Your task to perform on an android device: open device folders in google photos Image 0: 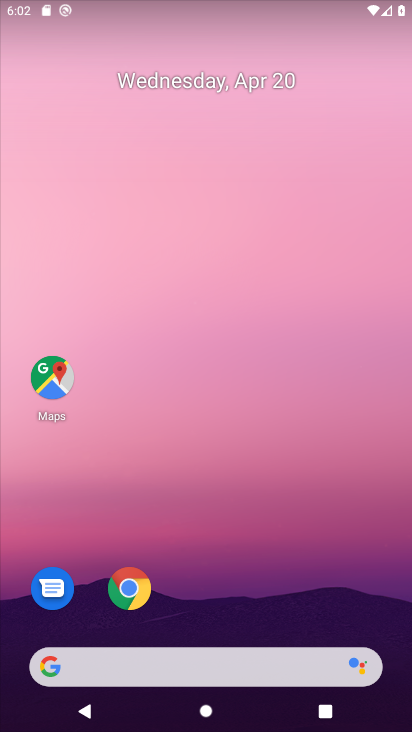
Step 0: drag from (285, 554) to (252, 50)
Your task to perform on an android device: open device folders in google photos Image 1: 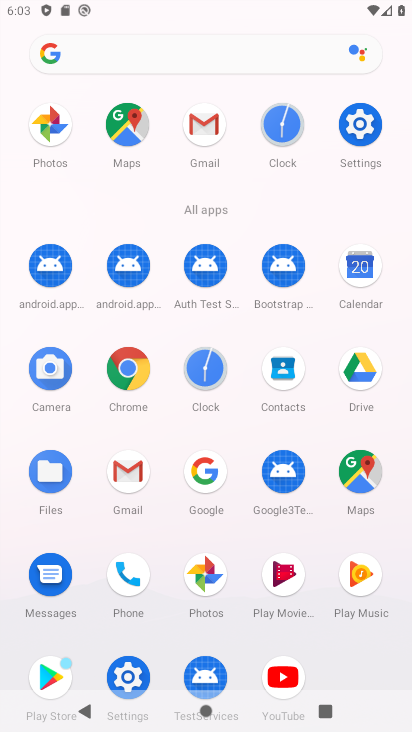
Step 1: click (54, 125)
Your task to perform on an android device: open device folders in google photos Image 2: 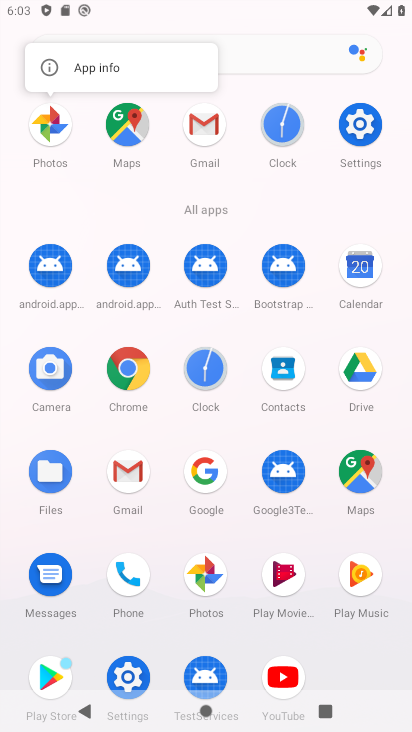
Step 2: click (214, 579)
Your task to perform on an android device: open device folders in google photos Image 3: 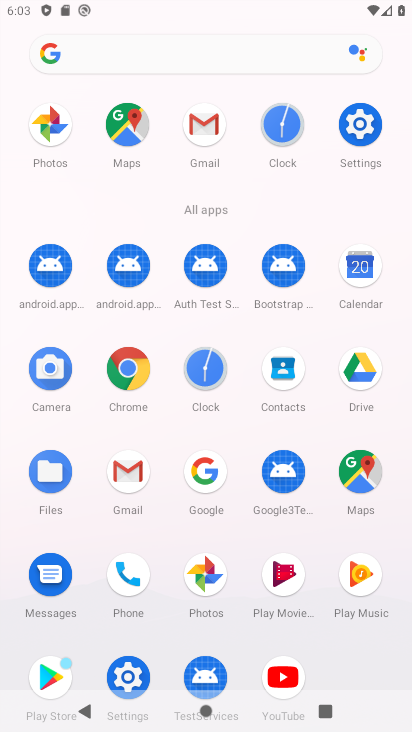
Step 3: click (201, 576)
Your task to perform on an android device: open device folders in google photos Image 4: 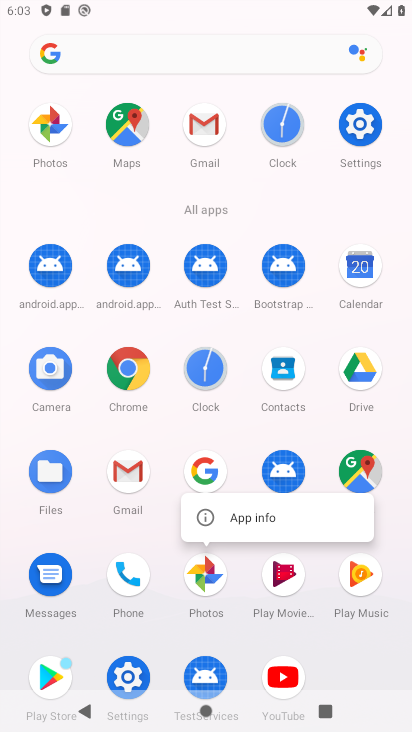
Step 4: click (214, 576)
Your task to perform on an android device: open device folders in google photos Image 5: 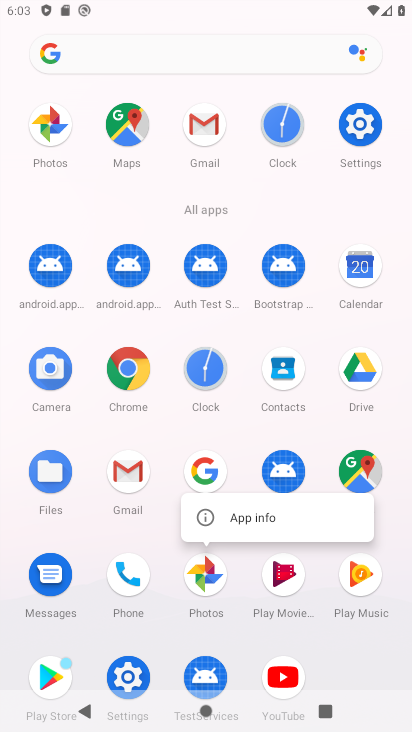
Step 5: click (203, 568)
Your task to perform on an android device: open device folders in google photos Image 6: 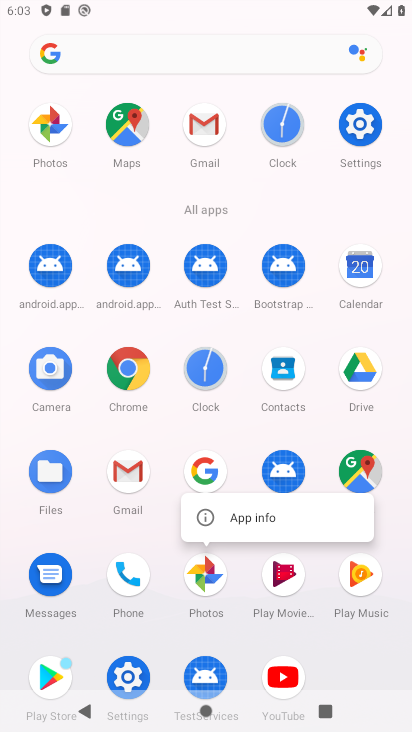
Step 6: click (203, 568)
Your task to perform on an android device: open device folders in google photos Image 7: 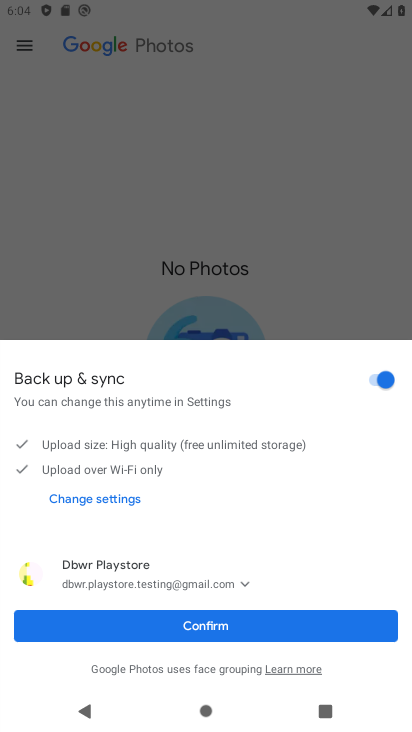
Step 7: press home button
Your task to perform on an android device: open device folders in google photos Image 8: 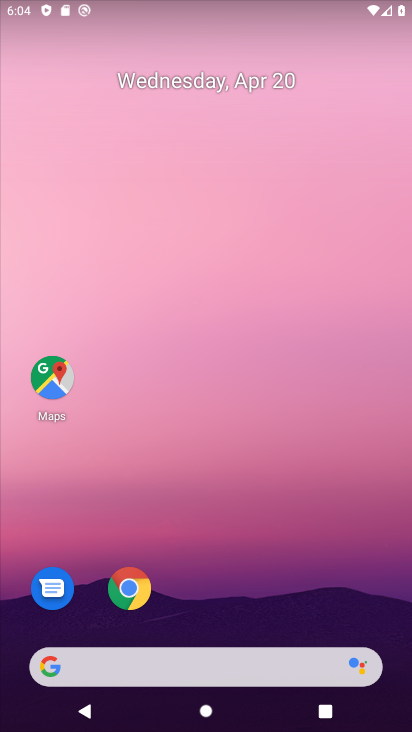
Step 8: drag from (251, 605) to (279, 128)
Your task to perform on an android device: open device folders in google photos Image 9: 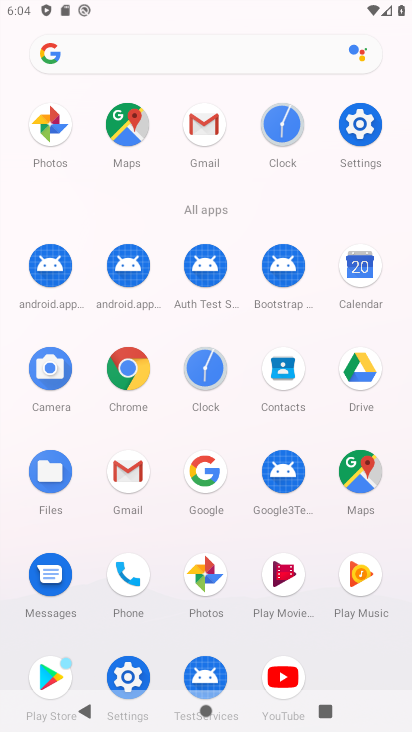
Step 9: click (200, 575)
Your task to perform on an android device: open device folders in google photos Image 10: 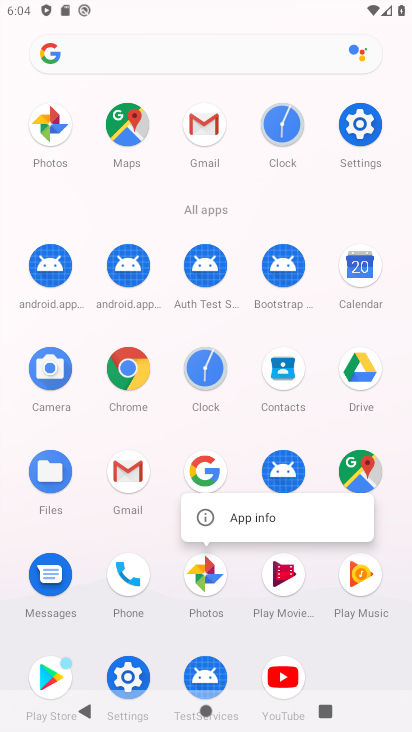
Step 10: click (217, 579)
Your task to perform on an android device: open device folders in google photos Image 11: 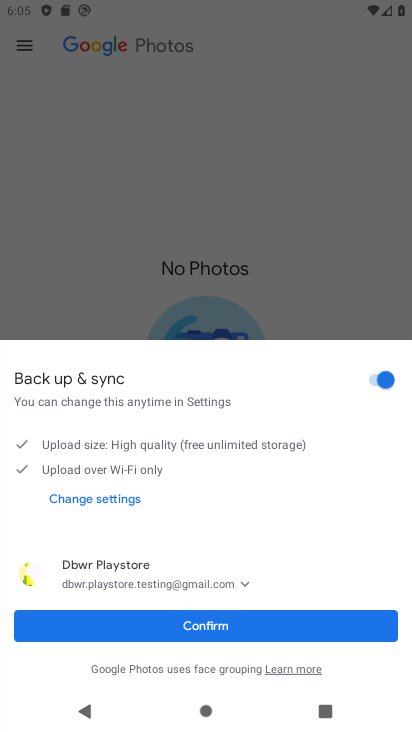
Step 11: click (301, 631)
Your task to perform on an android device: open device folders in google photos Image 12: 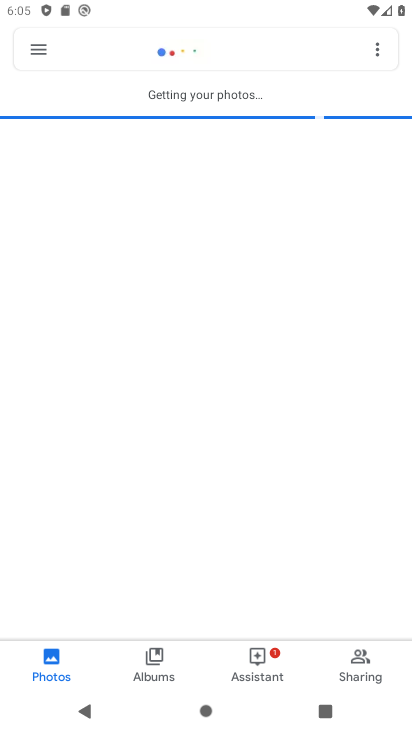
Step 12: click (33, 63)
Your task to perform on an android device: open device folders in google photos Image 13: 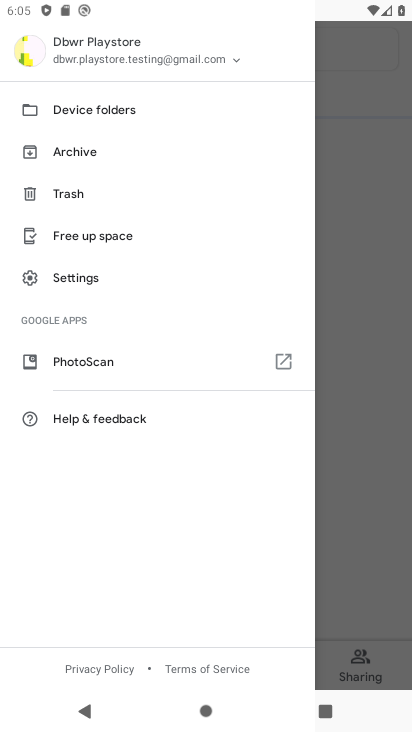
Step 13: click (112, 109)
Your task to perform on an android device: open device folders in google photos Image 14: 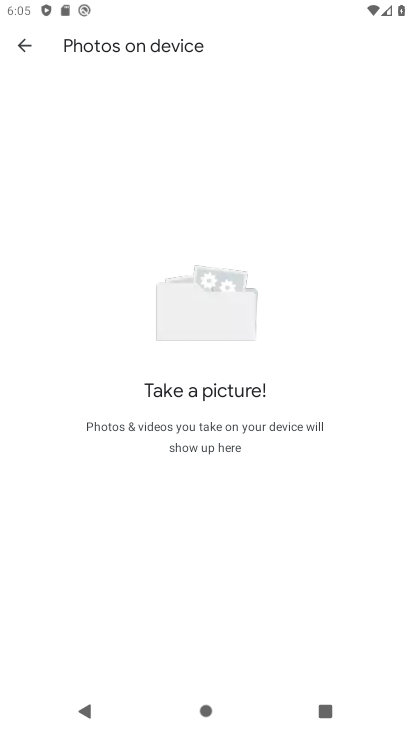
Step 14: task complete